Your task to perform on an android device: Open Youtube and go to the subscriptions tab Image 0: 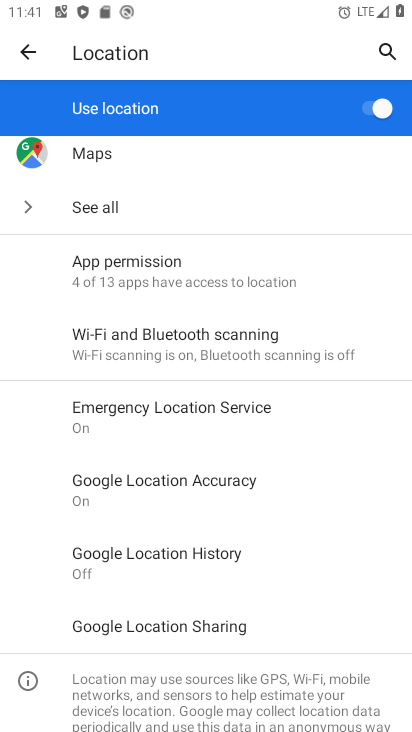
Step 0: press home button
Your task to perform on an android device: Open Youtube and go to the subscriptions tab Image 1: 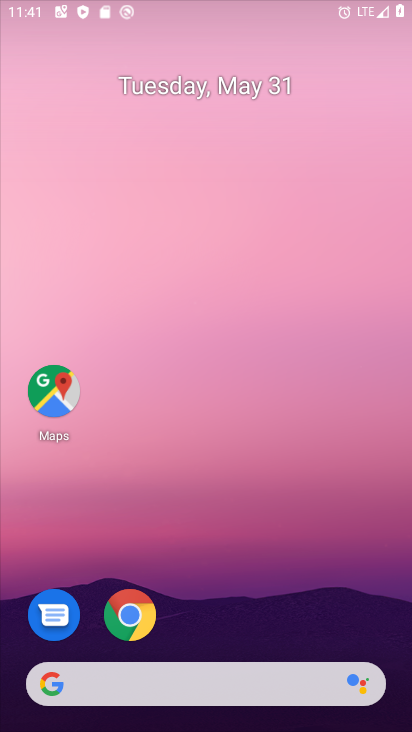
Step 1: drag from (350, 545) to (375, 57)
Your task to perform on an android device: Open Youtube and go to the subscriptions tab Image 2: 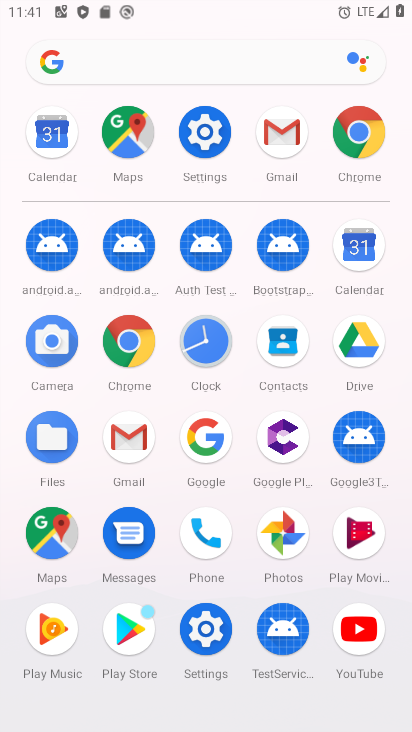
Step 2: click (369, 606)
Your task to perform on an android device: Open Youtube and go to the subscriptions tab Image 3: 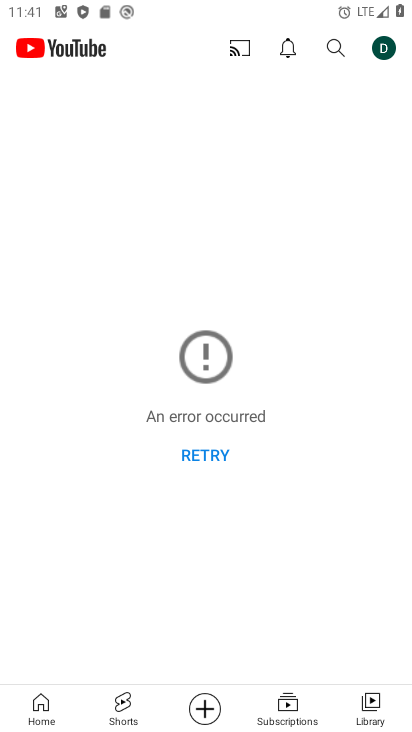
Step 3: click (292, 714)
Your task to perform on an android device: Open Youtube and go to the subscriptions tab Image 4: 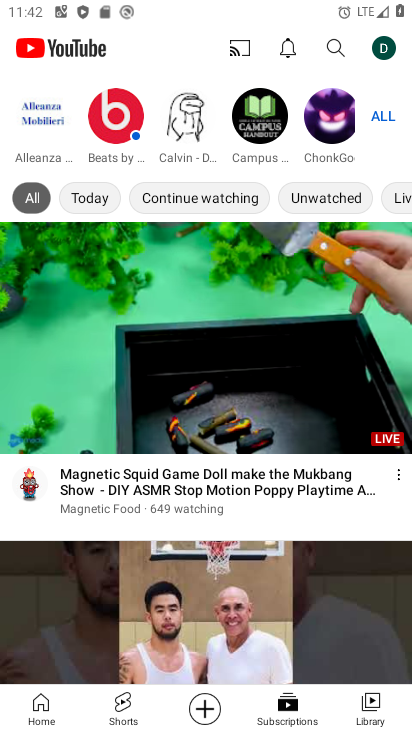
Step 4: task complete